Your task to perform on an android device: turn notification dots off Image 0: 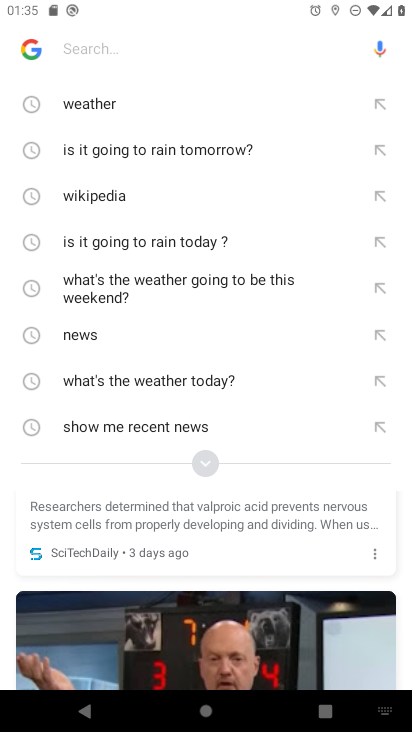
Step 0: press home button
Your task to perform on an android device: turn notification dots off Image 1: 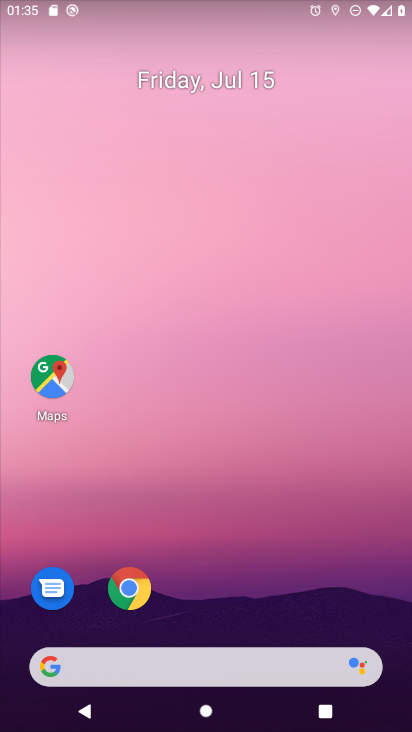
Step 1: drag from (388, 626) to (321, 183)
Your task to perform on an android device: turn notification dots off Image 2: 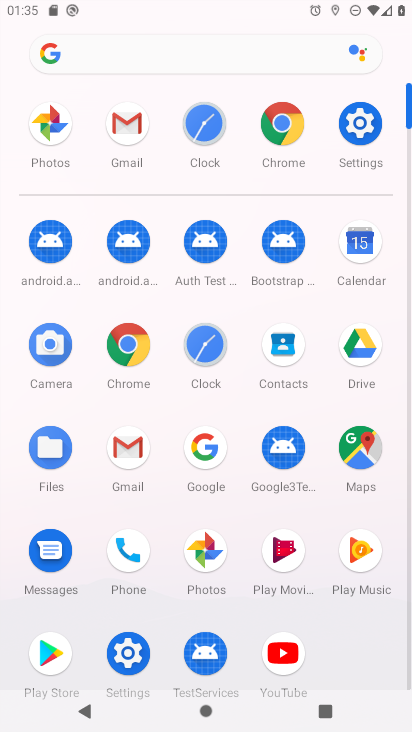
Step 2: click (126, 656)
Your task to perform on an android device: turn notification dots off Image 3: 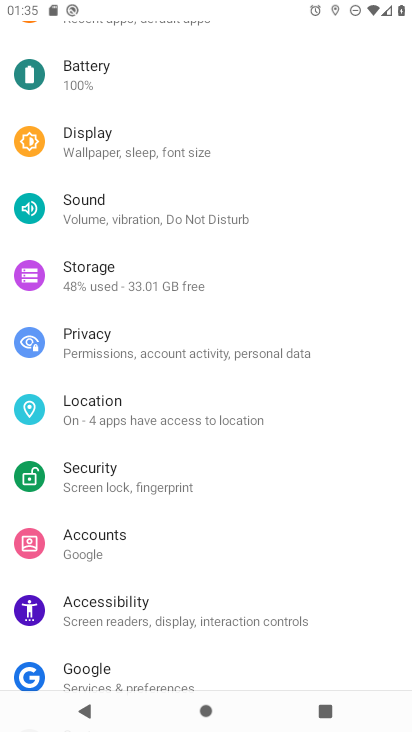
Step 3: drag from (320, 109) to (341, 376)
Your task to perform on an android device: turn notification dots off Image 4: 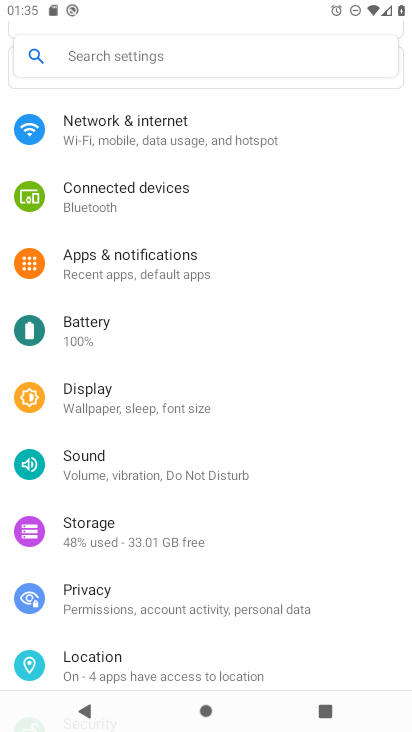
Step 4: click (116, 262)
Your task to perform on an android device: turn notification dots off Image 5: 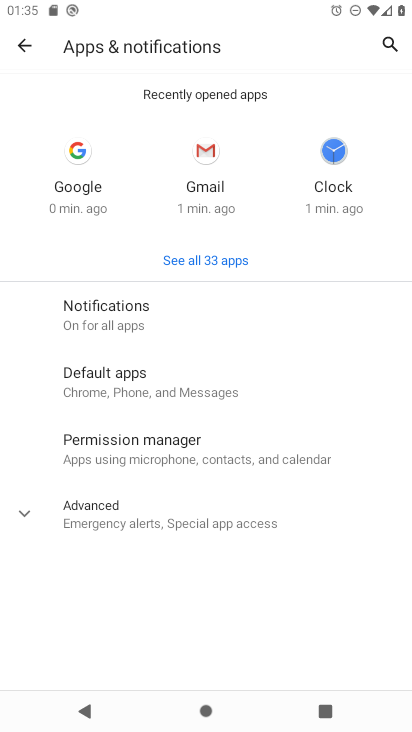
Step 5: click (118, 309)
Your task to perform on an android device: turn notification dots off Image 6: 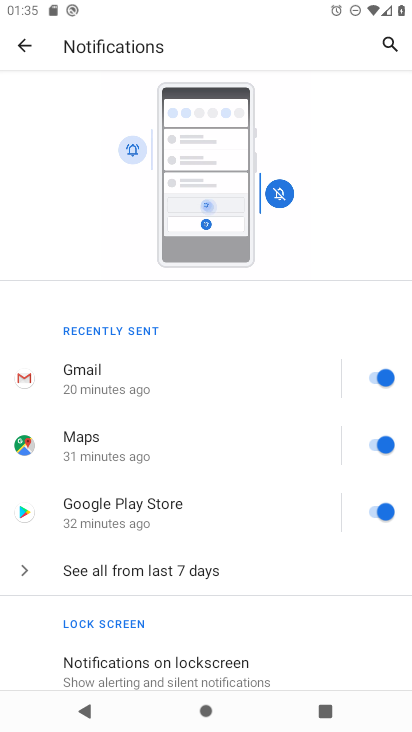
Step 6: drag from (317, 572) to (333, 224)
Your task to perform on an android device: turn notification dots off Image 7: 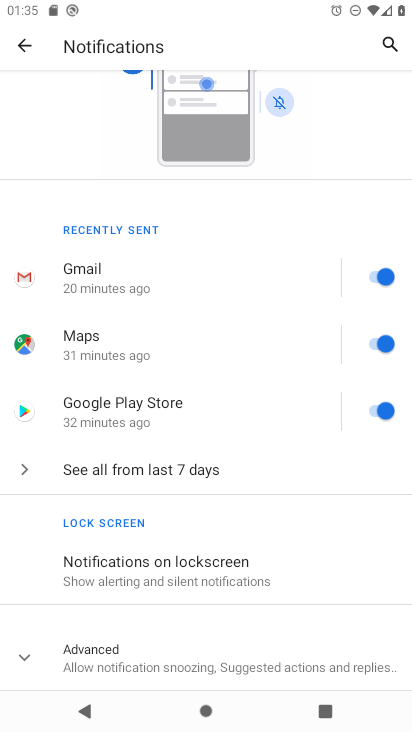
Step 7: click (22, 660)
Your task to perform on an android device: turn notification dots off Image 8: 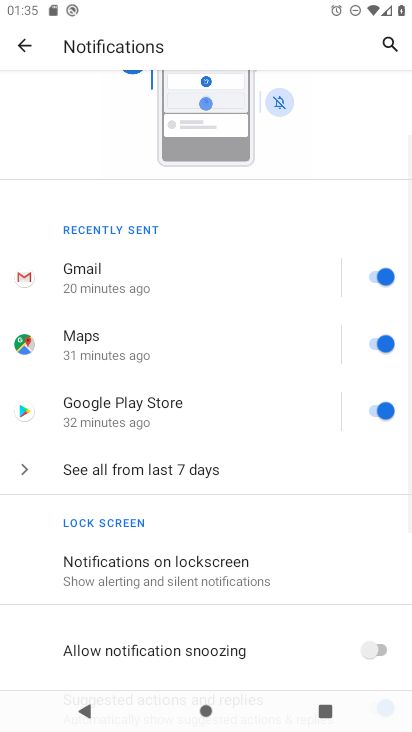
Step 8: task complete